Your task to perform on an android device: Show me popular games on the Play Store Image 0: 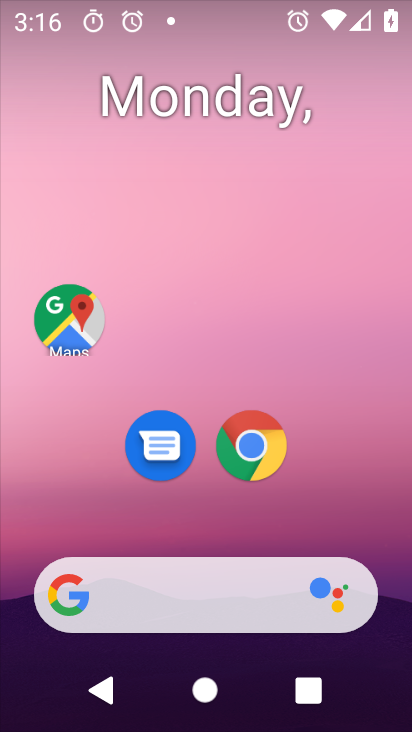
Step 0: drag from (228, 610) to (225, 44)
Your task to perform on an android device: Show me popular games on the Play Store Image 1: 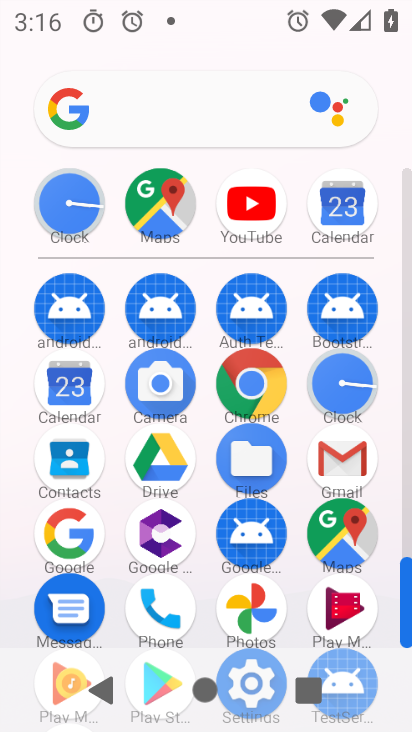
Step 1: drag from (188, 579) to (212, 105)
Your task to perform on an android device: Show me popular games on the Play Store Image 2: 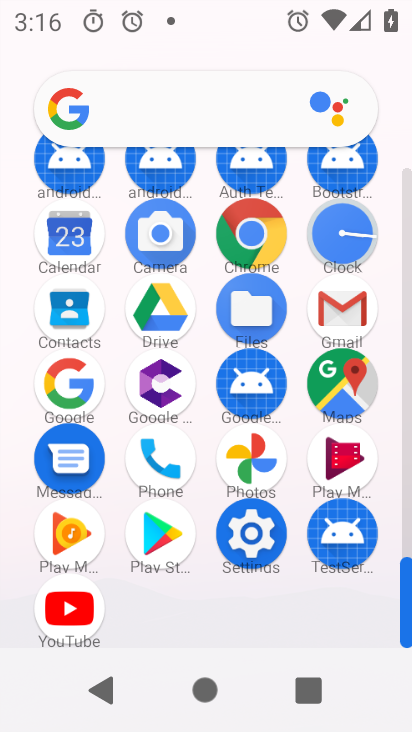
Step 2: click (167, 555)
Your task to perform on an android device: Show me popular games on the Play Store Image 3: 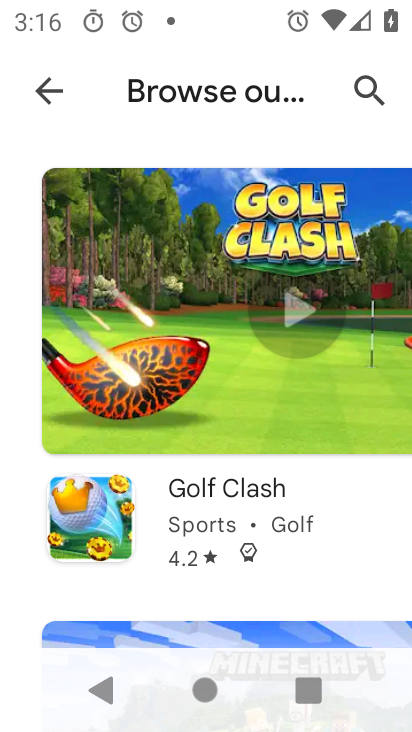
Step 3: task complete